Your task to perform on an android device: Open Google Chrome and open the bookmarks view Image 0: 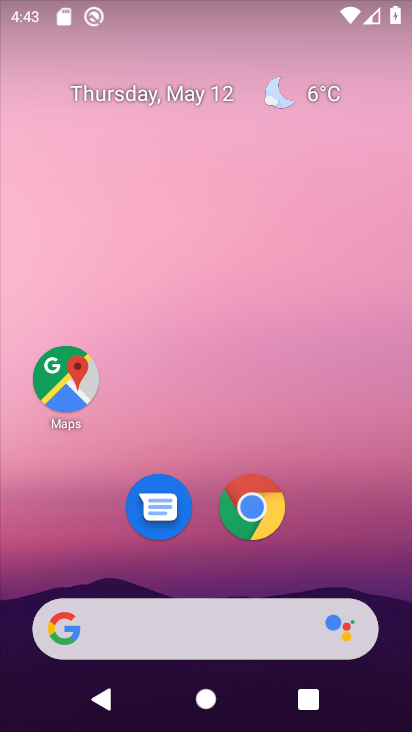
Step 0: click (262, 515)
Your task to perform on an android device: Open Google Chrome and open the bookmarks view Image 1: 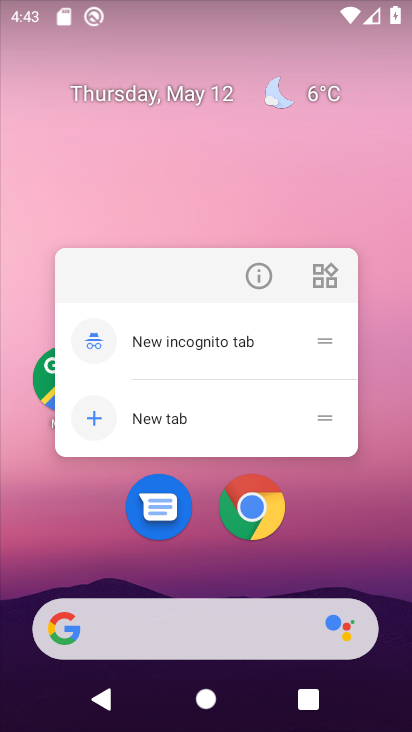
Step 1: click (242, 519)
Your task to perform on an android device: Open Google Chrome and open the bookmarks view Image 2: 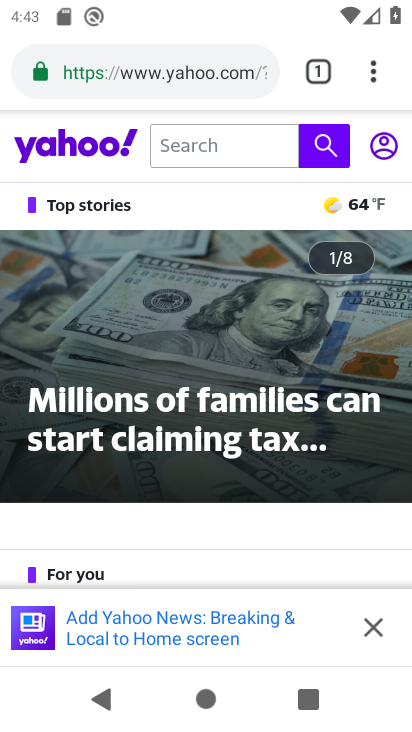
Step 2: task complete